Your task to perform on an android device: Search for Mexican restaurants on Maps Image 0: 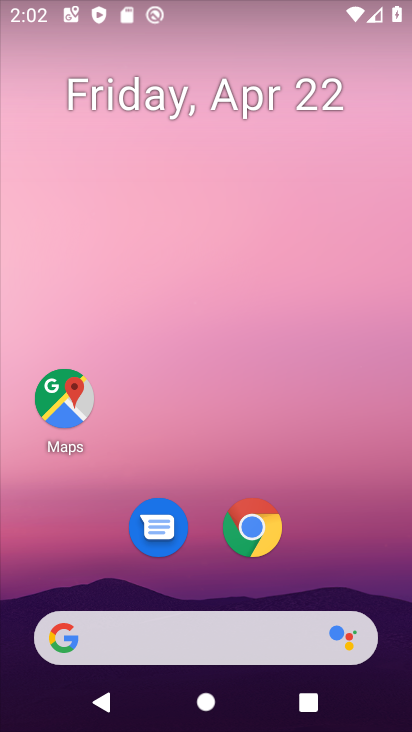
Step 0: drag from (306, 541) to (334, 108)
Your task to perform on an android device: Search for Mexican restaurants on Maps Image 1: 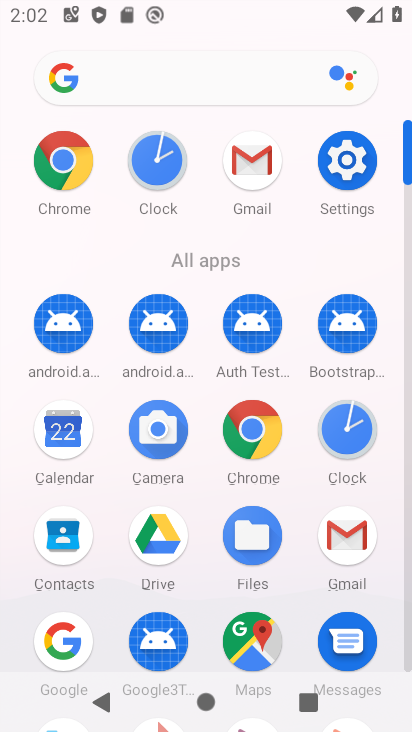
Step 1: drag from (307, 291) to (311, 26)
Your task to perform on an android device: Search for Mexican restaurants on Maps Image 2: 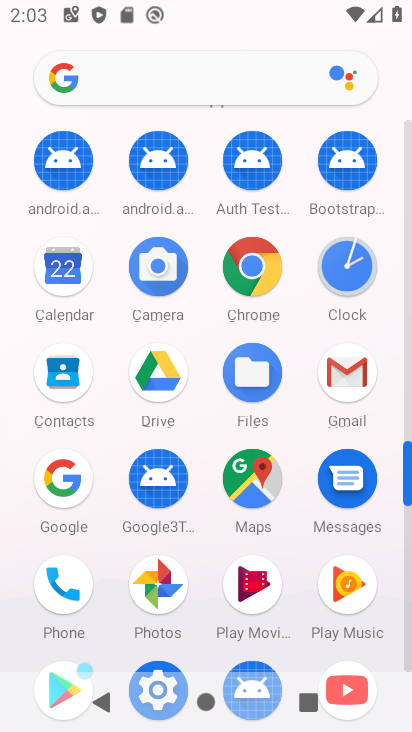
Step 2: click (254, 477)
Your task to perform on an android device: Search for Mexican restaurants on Maps Image 3: 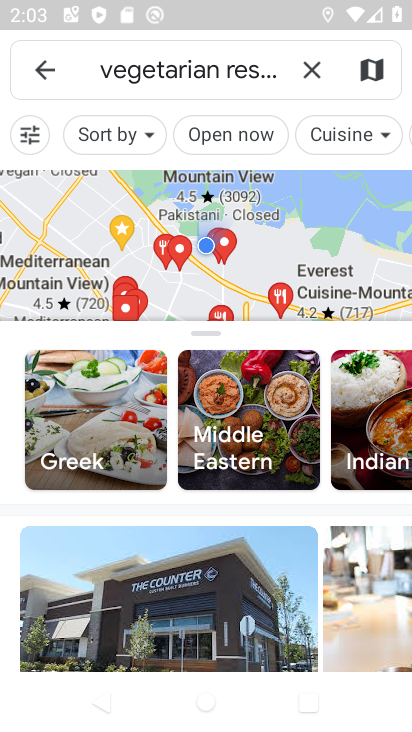
Step 3: click (312, 66)
Your task to perform on an android device: Search for Mexican restaurants on Maps Image 4: 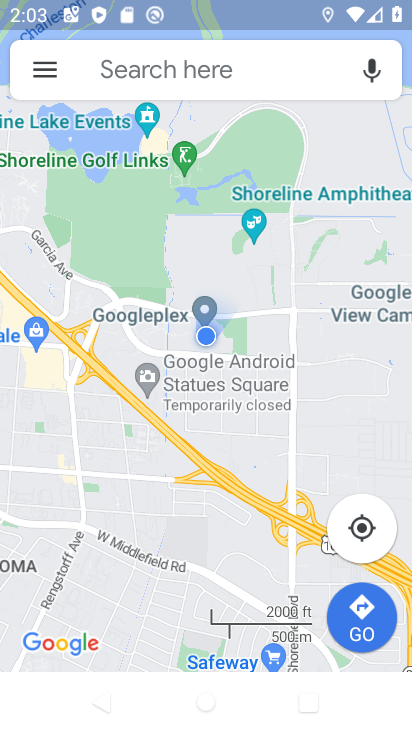
Step 4: click (153, 75)
Your task to perform on an android device: Search for Mexican restaurants on Maps Image 5: 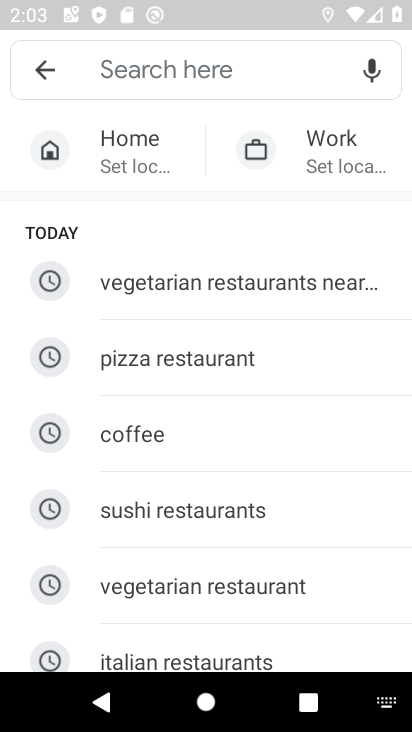
Step 5: type "Mexican restaurants"
Your task to perform on an android device: Search for Mexican restaurants on Maps Image 6: 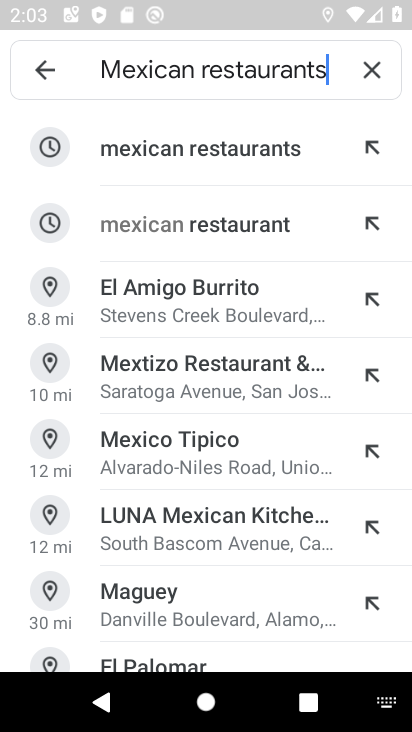
Step 6: click (155, 148)
Your task to perform on an android device: Search for Mexican restaurants on Maps Image 7: 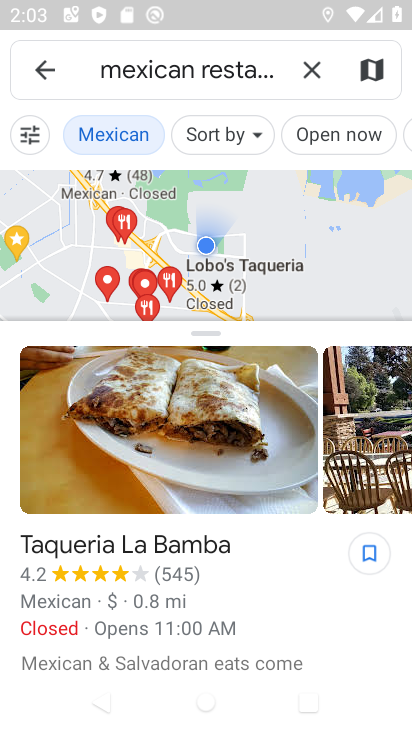
Step 7: task complete